Your task to perform on an android device: Search for vegetarian restaurants on Maps Image 0: 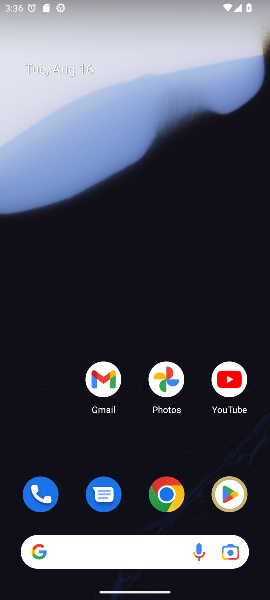
Step 0: drag from (136, 517) to (256, 411)
Your task to perform on an android device: Search for vegetarian restaurants on Maps Image 1: 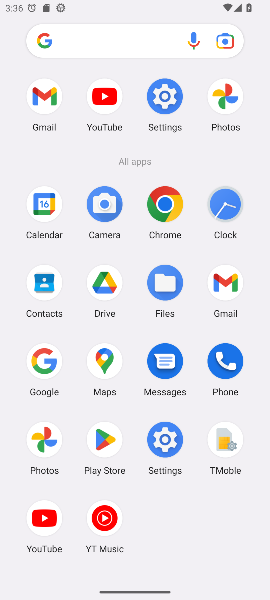
Step 1: click (103, 376)
Your task to perform on an android device: Search for vegetarian restaurants on Maps Image 2: 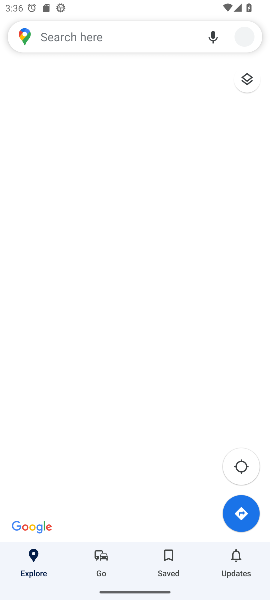
Step 2: click (135, 37)
Your task to perform on an android device: Search for vegetarian restaurants on Maps Image 3: 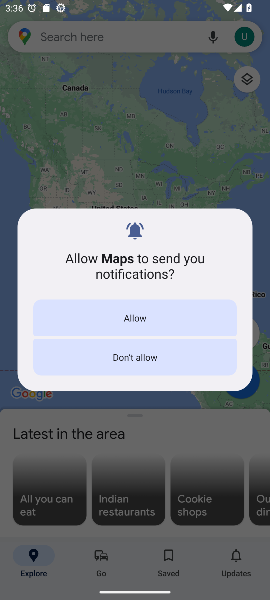
Step 3: click (145, 317)
Your task to perform on an android device: Search for vegetarian restaurants on Maps Image 4: 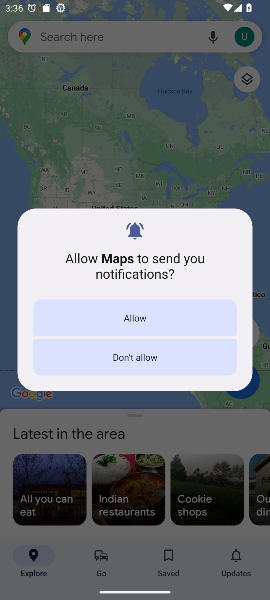
Step 4: drag from (108, 40) to (70, 40)
Your task to perform on an android device: Search for vegetarian restaurants on Maps Image 5: 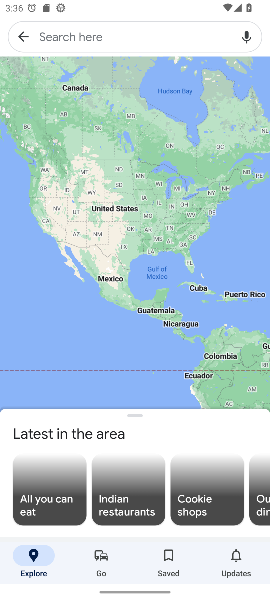
Step 5: click (70, 40)
Your task to perform on an android device: Search for vegetarian restaurants on Maps Image 6: 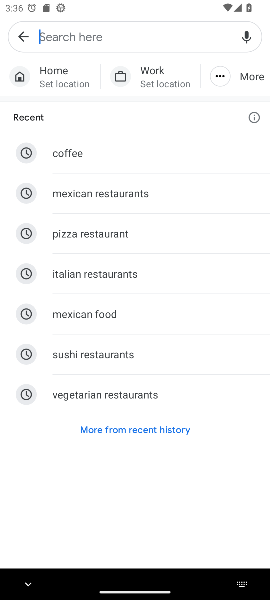
Step 6: type "vegetarian restaurants"
Your task to perform on an android device: Search for vegetarian restaurants on Maps Image 7: 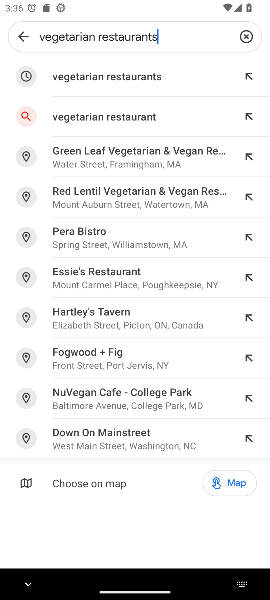
Step 7: click (46, 71)
Your task to perform on an android device: Search for vegetarian restaurants on Maps Image 8: 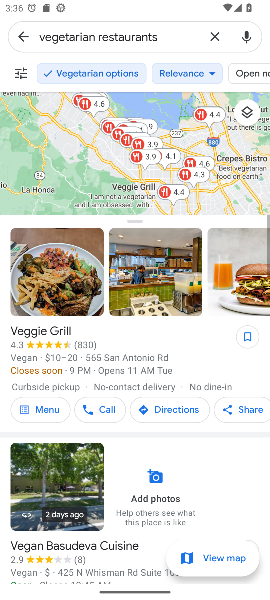
Step 8: task complete